Your task to perform on an android device: turn on the 24-hour format for clock Image 0: 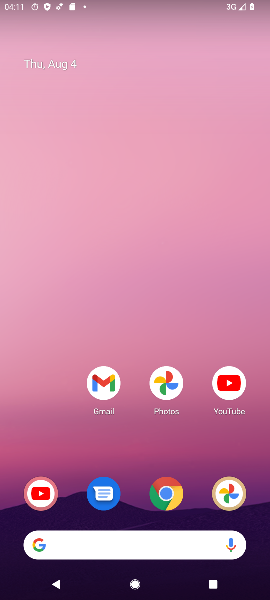
Step 0: drag from (25, 587) to (197, 36)
Your task to perform on an android device: turn on the 24-hour format for clock Image 1: 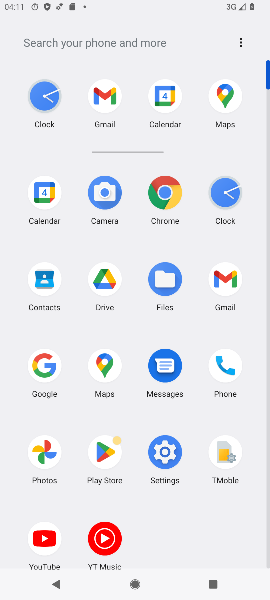
Step 1: click (221, 197)
Your task to perform on an android device: turn on the 24-hour format for clock Image 2: 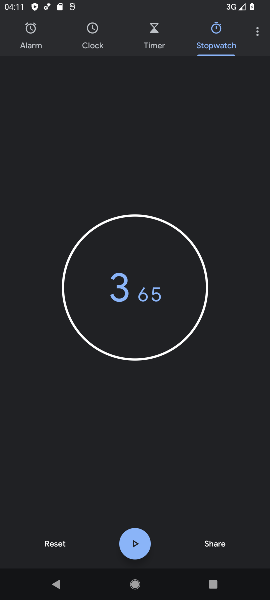
Step 2: click (92, 43)
Your task to perform on an android device: turn on the 24-hour format for clock Image 3: 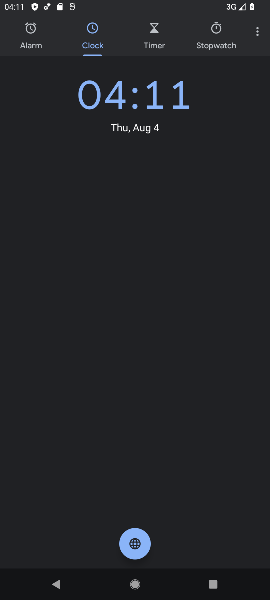
Step 3: click (259, 39)
Your task to perform on an android device: turn on the 24-hour format for clock Image 4: 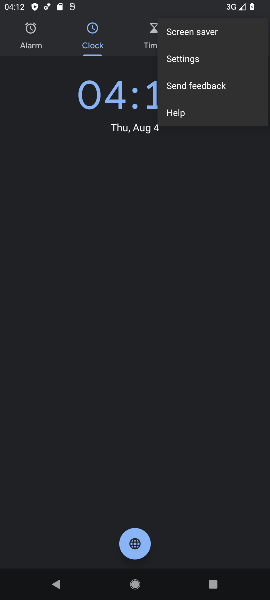
Step 4: click (185, 56)
Your task to perform on an android device: turn on the 24-hour format for clock Image 5: 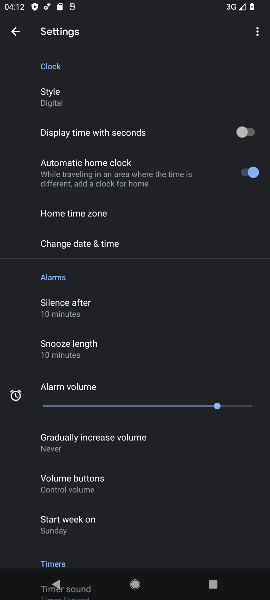
Step 5: click (72, 213)
Your task to perform on an android device: turn on the 24-hour format for clock Image 6: 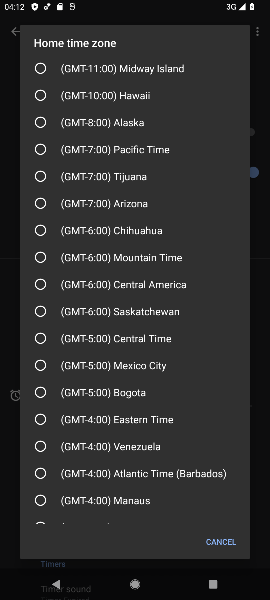
Step 6: click (225, 548)
Your task to perform on an android device: turn on the 24-hour format for clock Image 7: 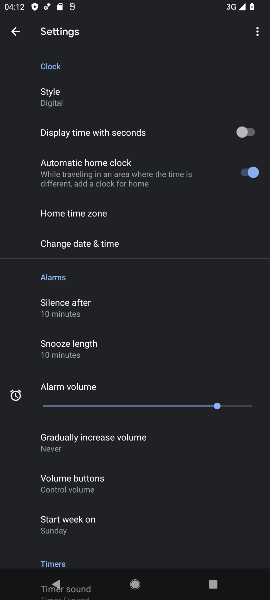
Step 7: click (62, 243)
Your task to perform on an android device: turn on the 24-hour format for clock Image 8: 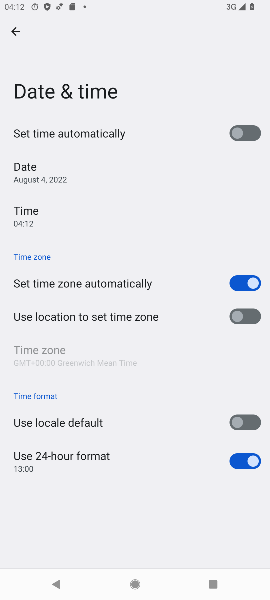
Step 8: task complete